Your task to perform on an android device: Open wifi settings Image 0: 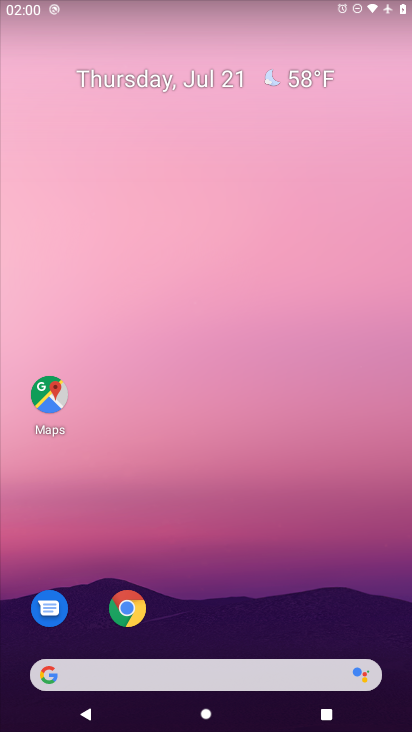
Step 0: press home button
Your task to perform on an android device: Open wifi settings Image 1: 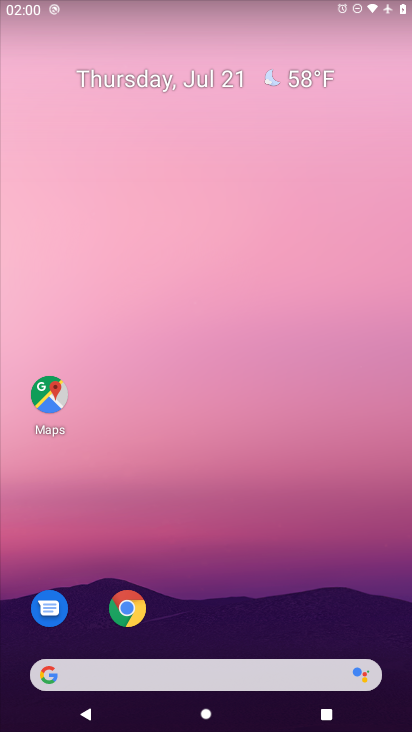
Step 1: drag from (241, 594) to (336, 9)
Your task to perform on an android device: Open wifi settings Image 2: 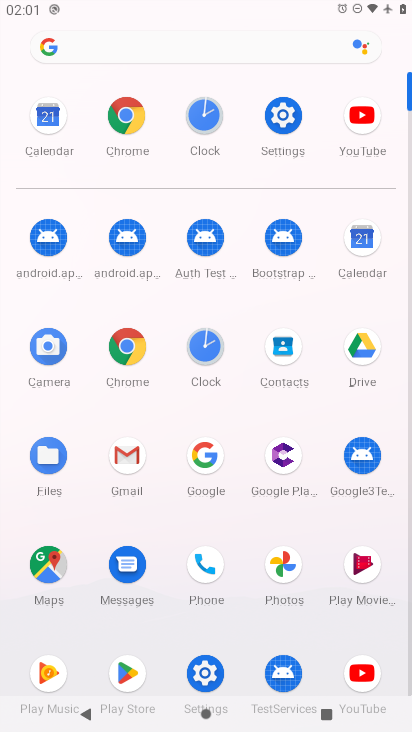
Step 2: click (290, 128)
Your task to perform on an android device: Open wifi settings Image 3: 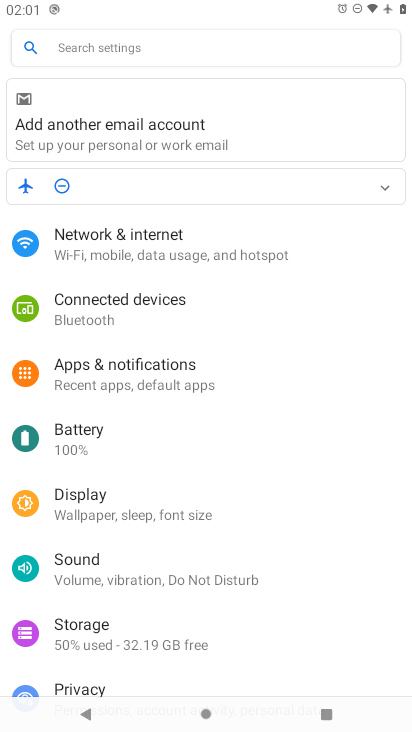
Step 3: click (128, 248)
Your task to perform on an android device: Open wifi settings Image 4: 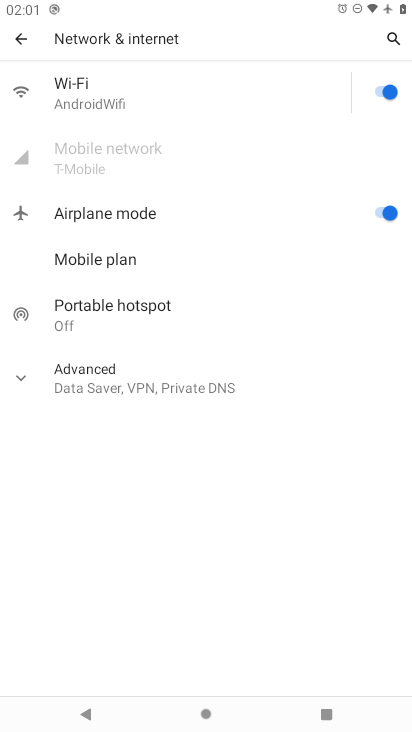
Step 4: click (68, 93)
Your task to perform on an android device: Open wifi settings Image 5: 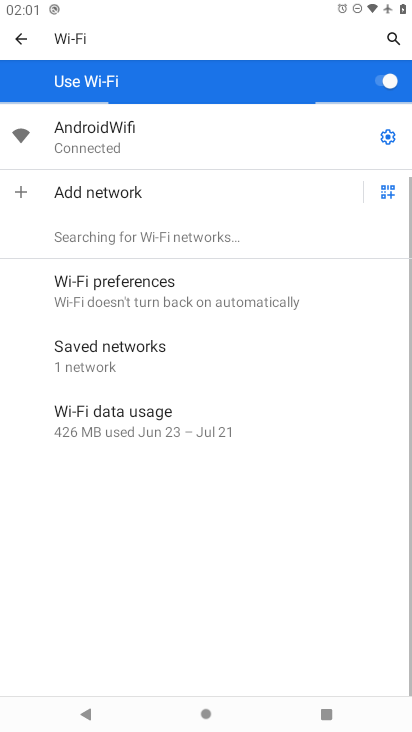
Step 5: task complete